Your task to perform on an android device: What's the weather like in Rio de Janeiro? Image 0: 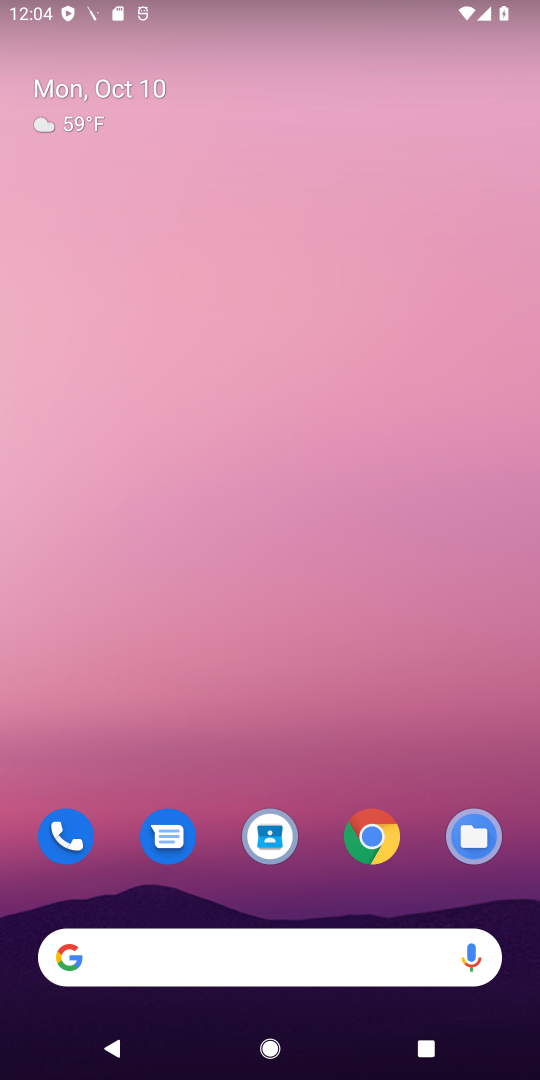
Step 0: click (366, 826)
Your task to perform on an android device: What's the weather like in Rio de Janeiro? Image 1: 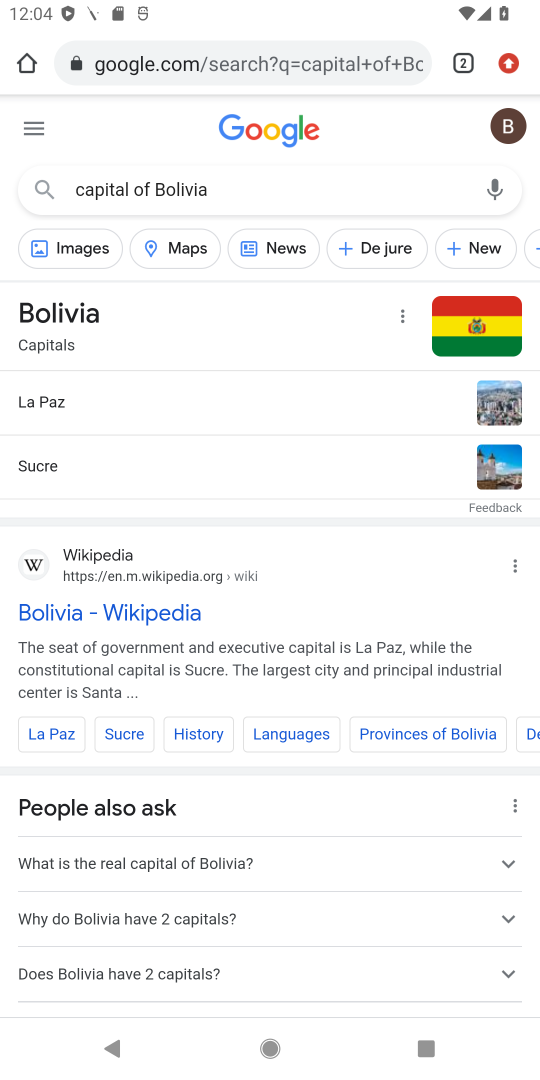
Step 1: click (210, 47)
Your task to perform on an android device: What's the weather like in Rio de Janeiro? Image 2: 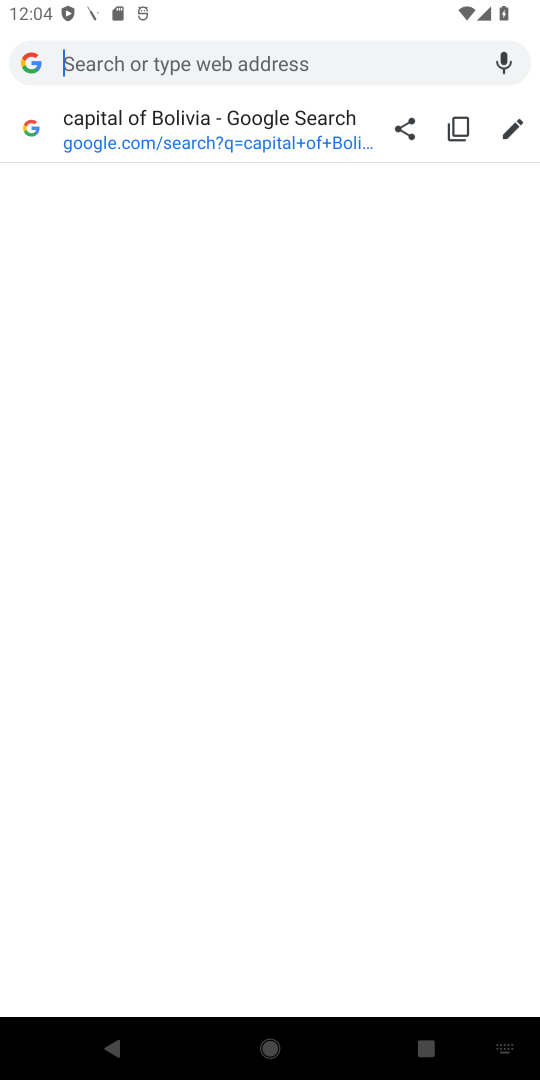
Step 2: type "weather like in Rio de Janeiro"
Your task to perform on an android device: What's the weather like in Rio de Janeiro? Image 3: 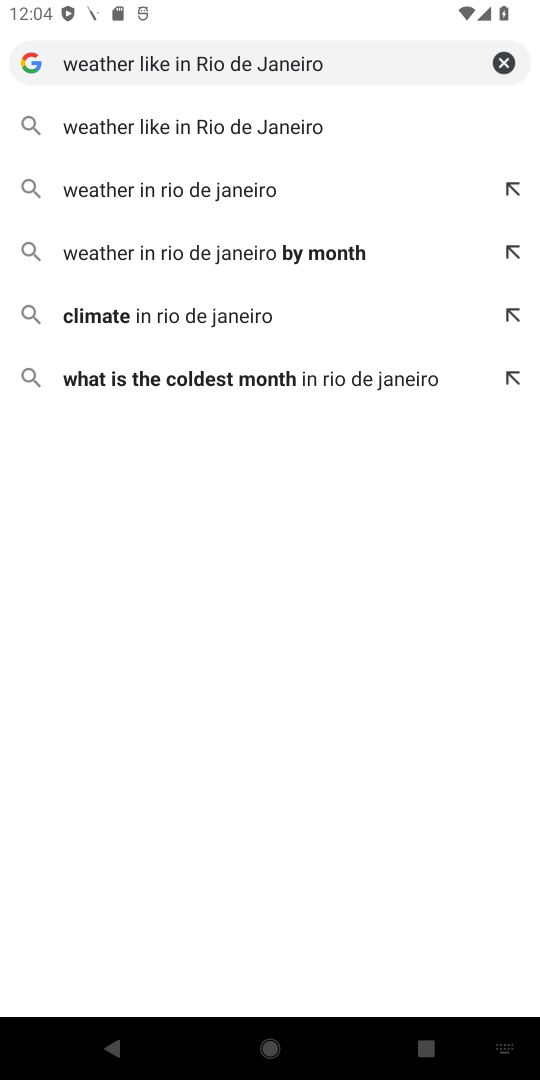
Step 3: click (311, 131)
Your task to perform on an android device: What's the weather like in Rio de Janeiro? Image 4: 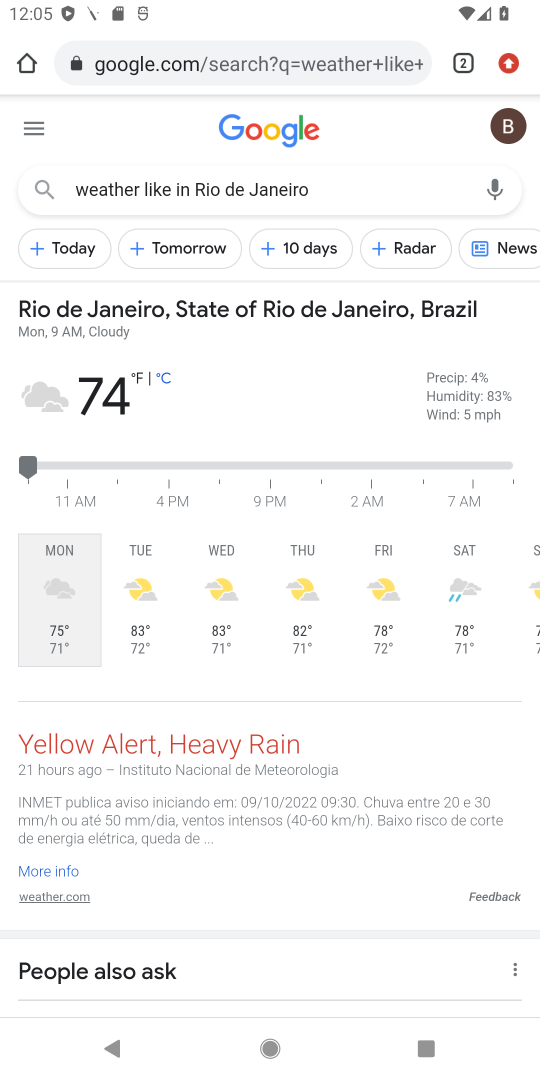
Step 4: task complete